Your task to perform on an android device: Go to Wikipedia Image 0: 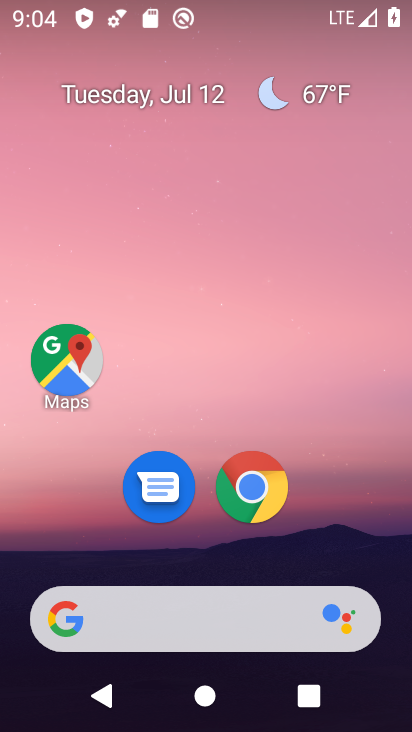
Step 0: click (257, 484)
Your task to perform on an android device: Go to Wikipedia Image 1: 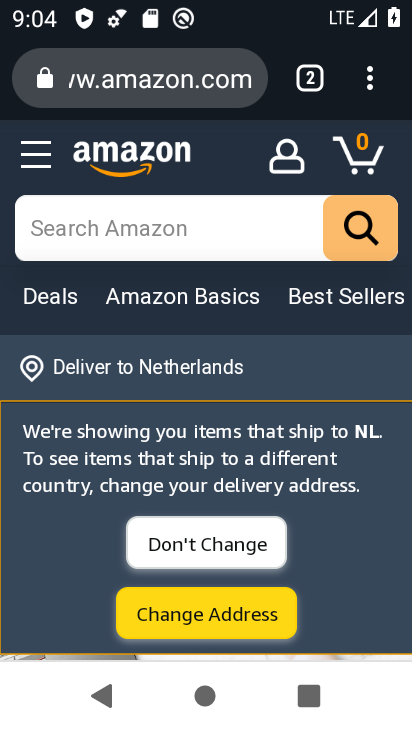
Step 1: click (317, 66)
Your task to perform on an android device: Go to Wikipedia Image 2: 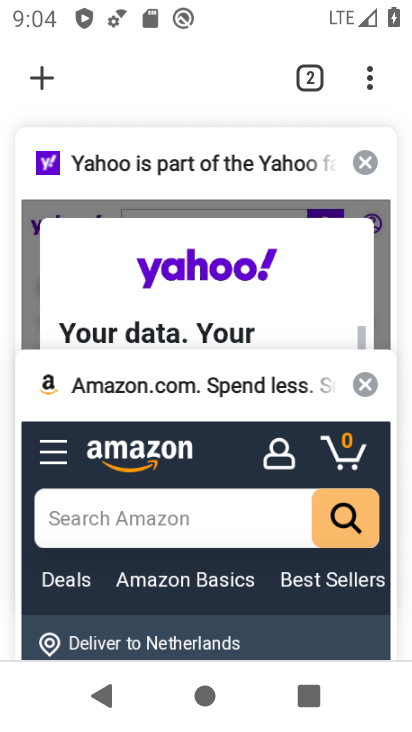
Step 2: click (20, 64)
Your task to perform on an android device: Go to Wikipedia Image 3: 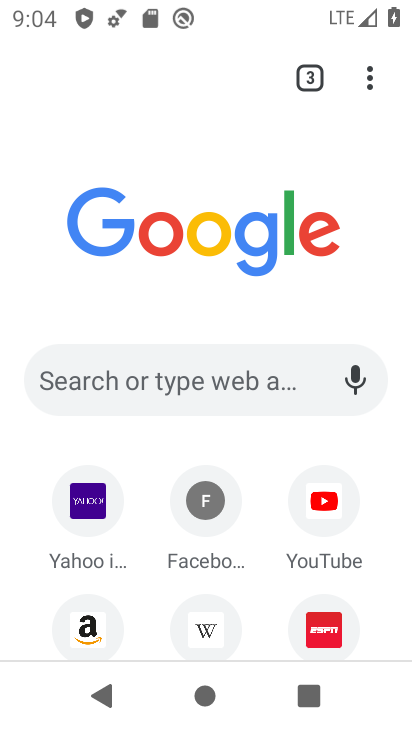
Step 3: click (197, 635)
Your task to perform on an android device: Go to Wikipedia Image 4: 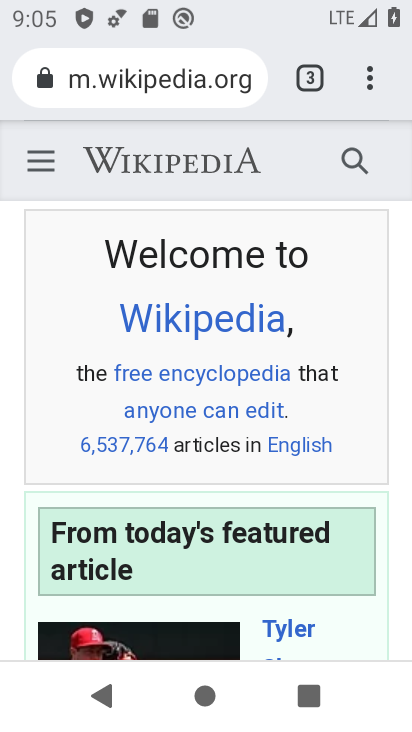
Step 4: task complete